Your task to perform on an android device: turn smart compose on in the gmail app Image 0: 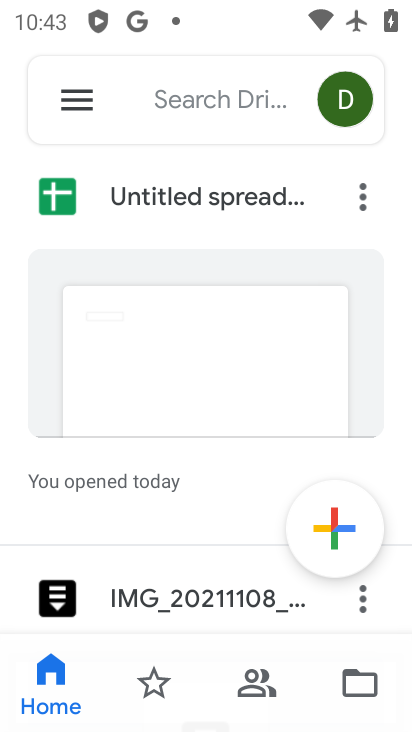
Step 0: press home button
Your task to perform on an android device: turn smart compose on in the gmail app Image 1: 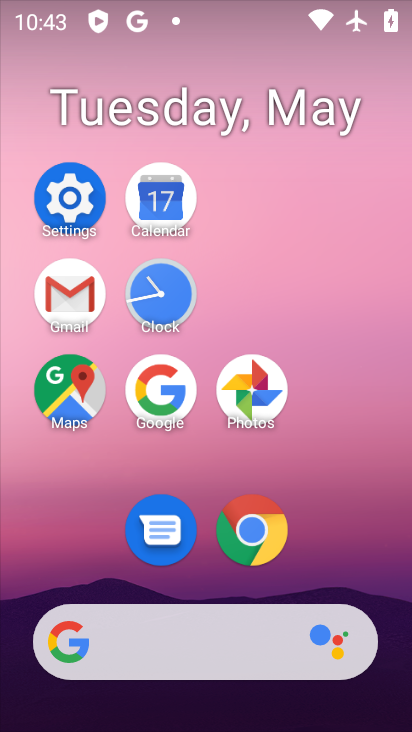
Step 1: click (76, 281)
Your task to perform on an android device: turn smart compose on in the gmail app Image 2: 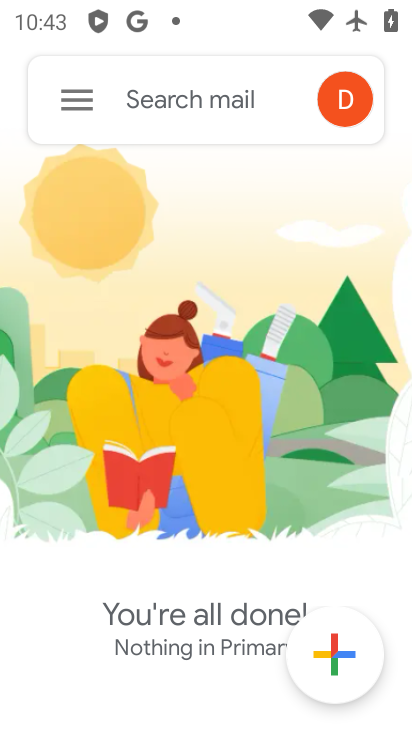
Step 2: click (73, 106)
Your task to perform on an android device: turn smart compose on in the gmail app Image 3: 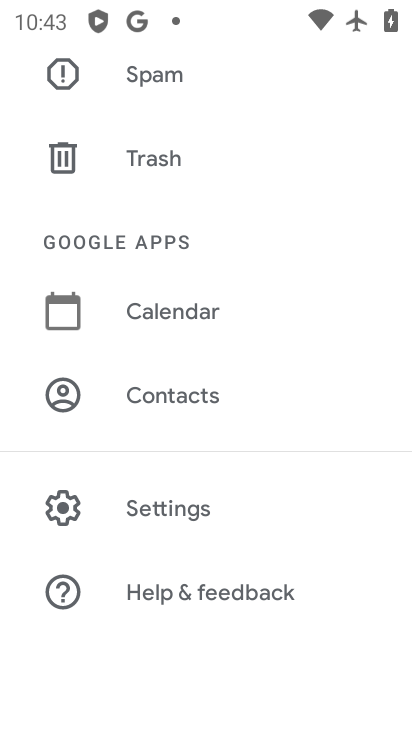
Step 3: drag from (153, 577) to (226, 263)
Your task to perform on an android device: turn smart compose on in the gmail app Image 4: 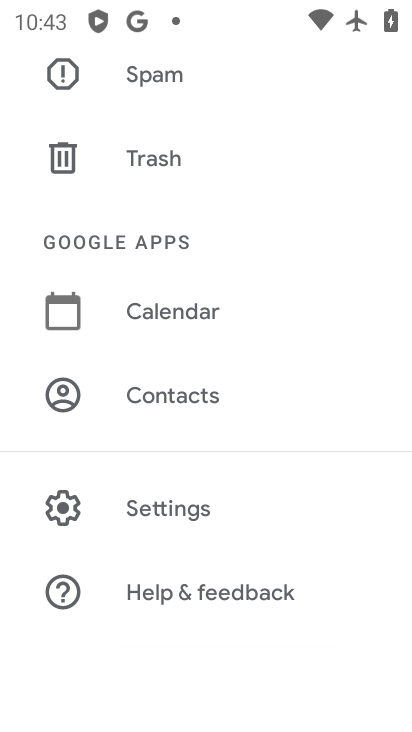
Step 4: click (205, 514)
Your task to perform on an android device: turn smart compose on in the gmail app Image 5: 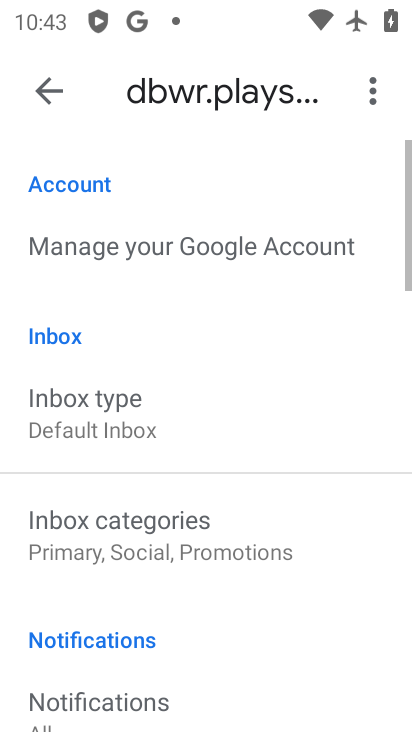
Step 5: task complete